Your task to perform on an android device: change alarm snooze length Image 0: 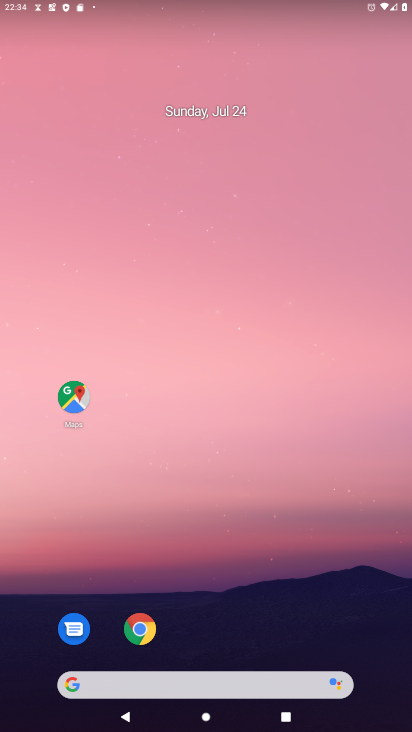
Step 0: drag from (196, 574) to (253, 302)
Your task to perform on an android device: change alarm snooze length Image 1: 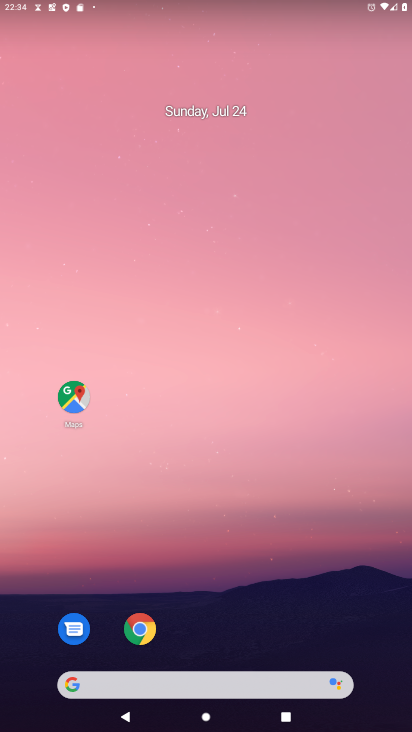
Step 1: drag from (197, 646) to (216, 296)
Your task to perform on an android device: change alarm snooze length Image 2: 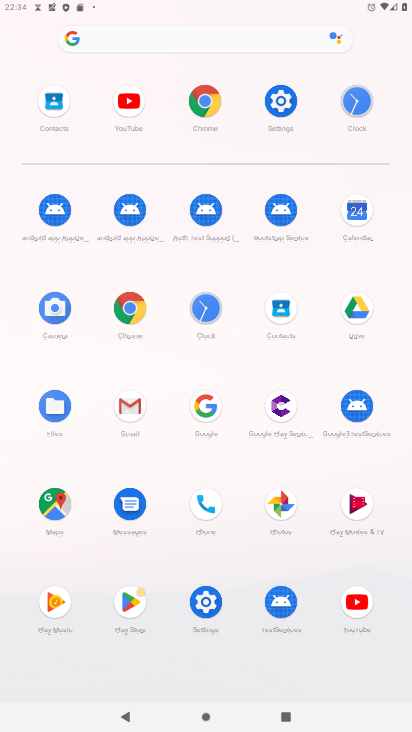
Step 2: click (197, 607)
Your task to perform on an android device: change alarm snooze length Image 3: 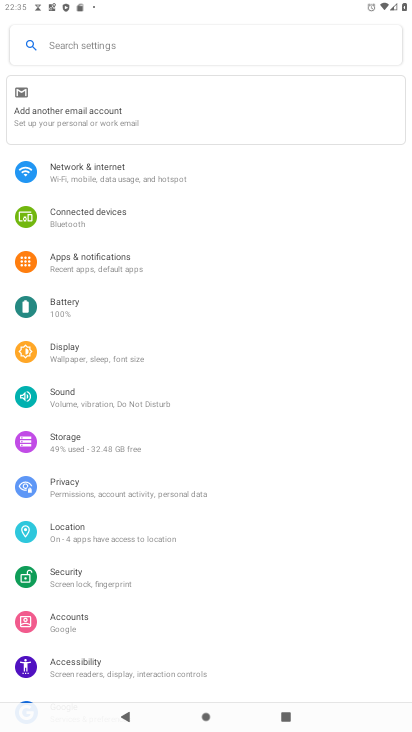
Step 3: press home button
Your task to perform on an android device: change alarm snooze length Image 4: 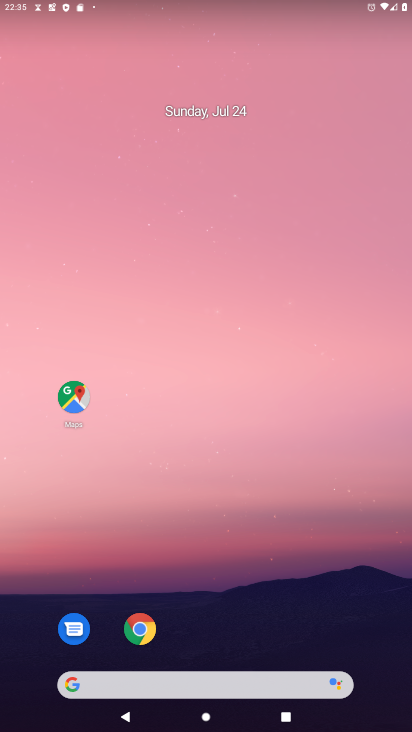
Step 4: drag from (220, 604) to (303, 244)
Your task to perform on an android device: change alarm snooze length Image 5: 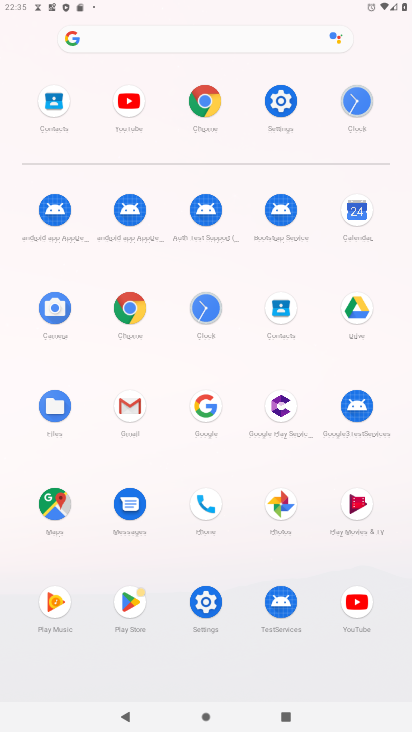
Step 5: click (215, 307)
Your task to perform on an android device: change alarm snooze length Image 6: 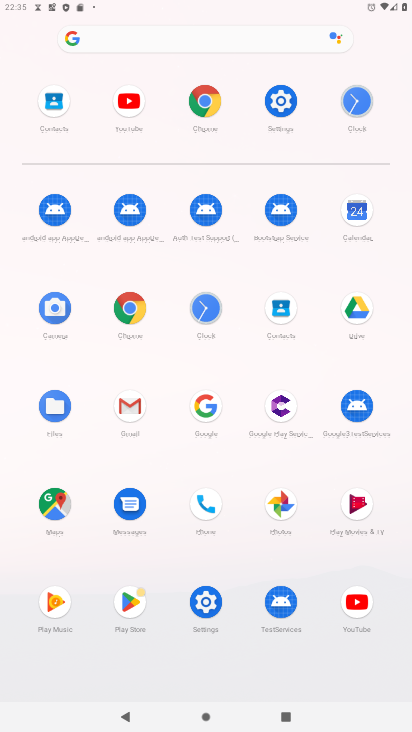
Step 6: click (206, 308)
Your task to perform on an android device: change alarm snooze length Image 7: 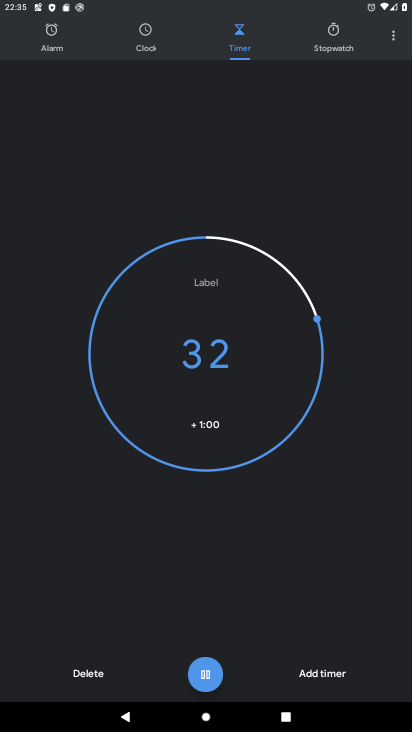
Step 7: click (389, 33)
Your task to perform on an android device: change alarm snooze length Image 8: 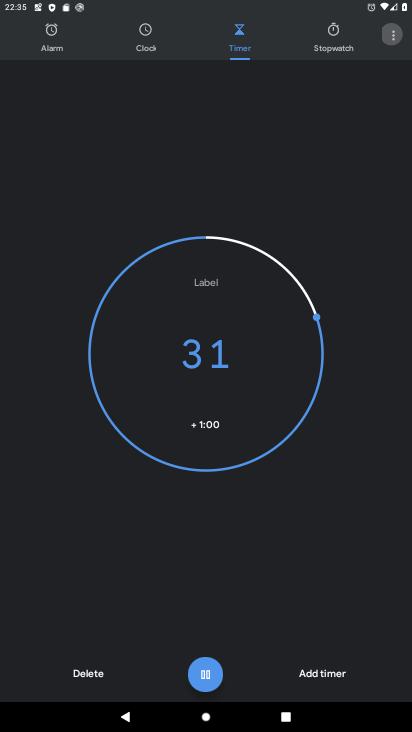
Step 8: drag from (390, 34) to (323, 66)
Your task to perform on an android device: change alarm snooze length Image 9: 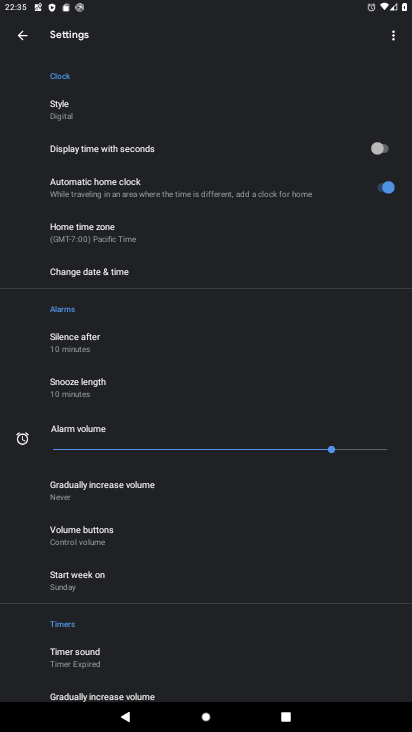
Step 9: click (84, 385)
Your task to perform on an android device: change alarm snooze length Image 10: 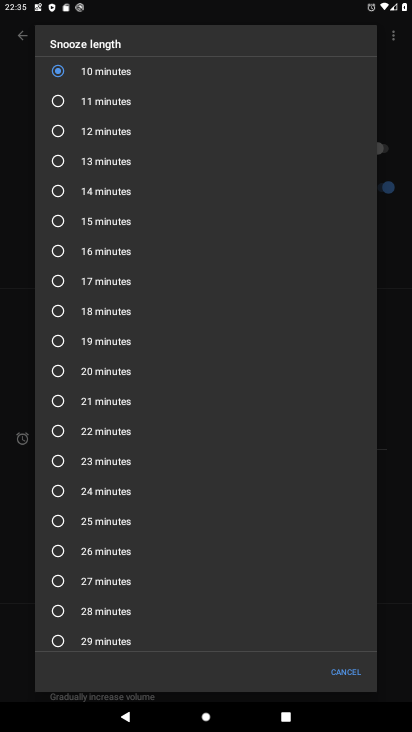
Step 10: click (63, 105)
Your task to perform on an android device: change alarm snooze length Image 11: 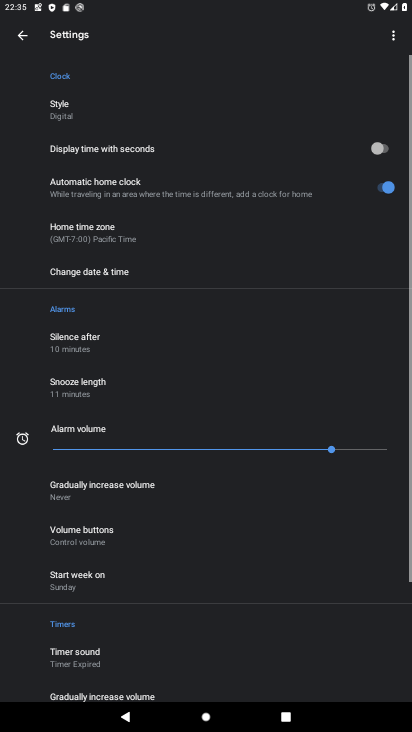
Step 11: task complete